Your task to perform on an android device: turn vacation reply on in the gmail app Image 0: 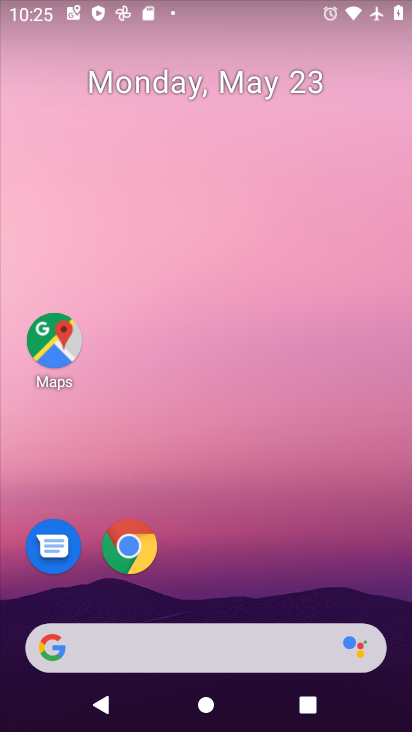
Step 0: drag from (397, 567) to (359, 35)
Your task to perform on an android device: turn vacation reply on in the gmail app Image 1: 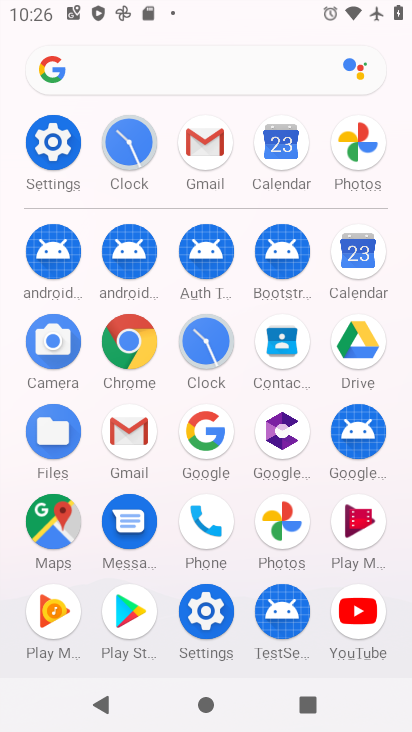
Step 1: click (124, 428)
Your task to perform on an android device: turn vacation reply on in the gmail app Image 2: 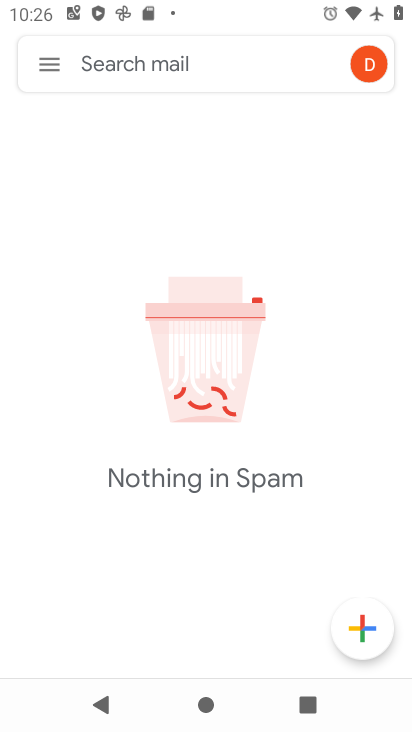
Step 2: click (52, 64)
Your task to perform on an android device: turn vacation reply on in the gmail app Image 3: 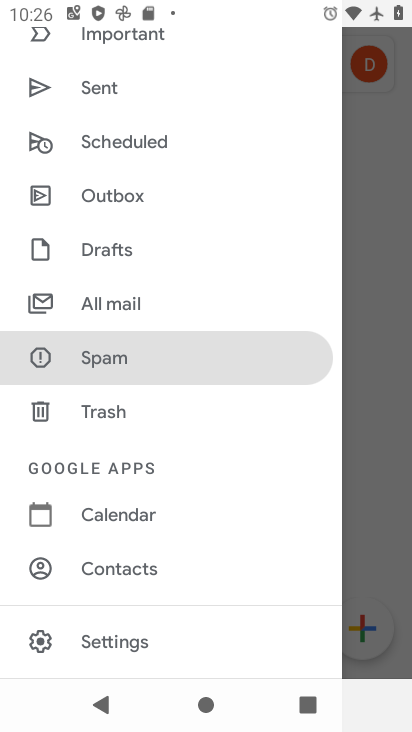
Step 3: click (103, 628)
Your task to perform on an android device: turn vacation reply on in the gmail app Image 4: 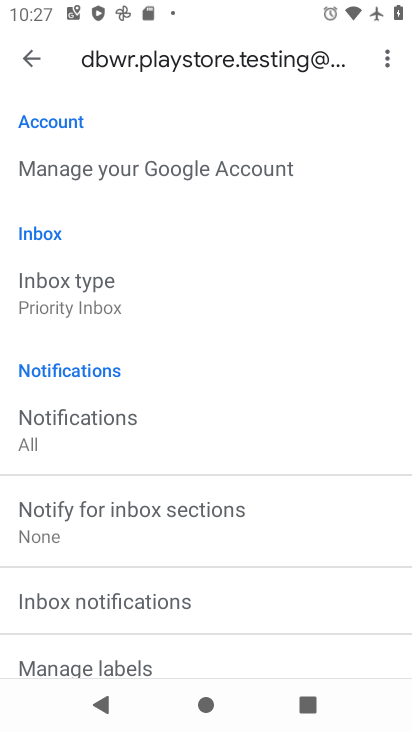
Step 4: drag from (103, 628) to (241, 134)
Your task to perform on an android device: turn vacation reply on in the gmail app Image 5: 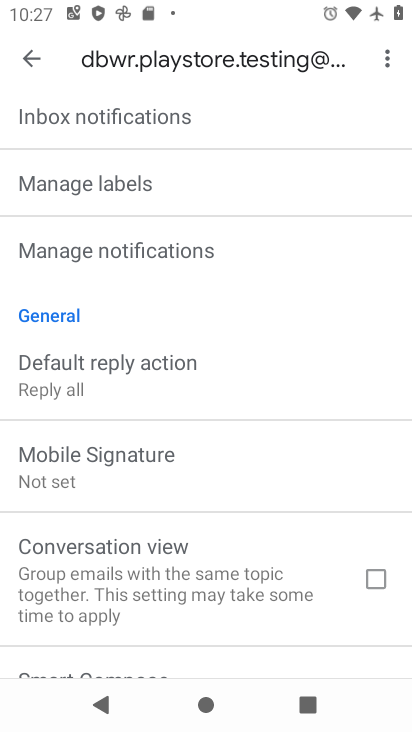
Step 5: drag from (196, 585) to (315, 121)
Your task to perform on an android device: turn vacation reply on in the gmail app Image 6: 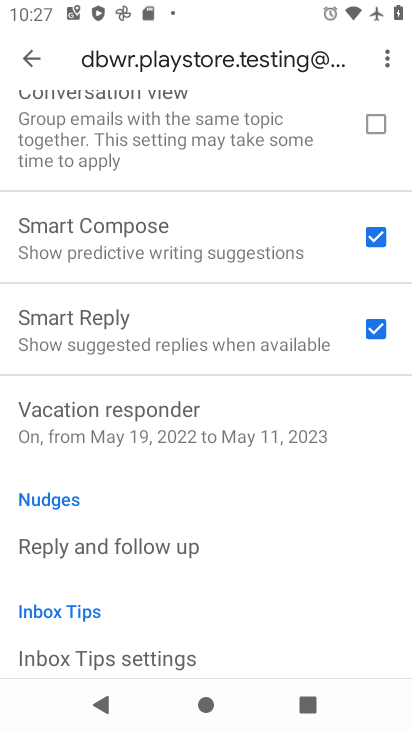
Step 6: click (158, 414)
Your task to perform on an android device: turn vacation reply on in the gmail app Image 7: 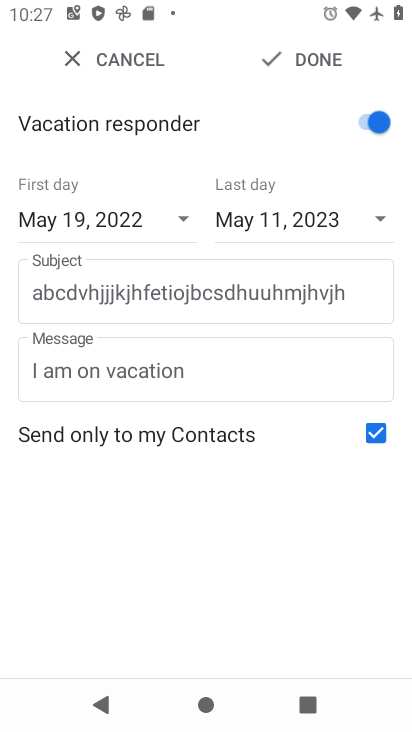
Step 7: task complete